Your task to perform on an android device: change the clock display to show seconds Image 0: 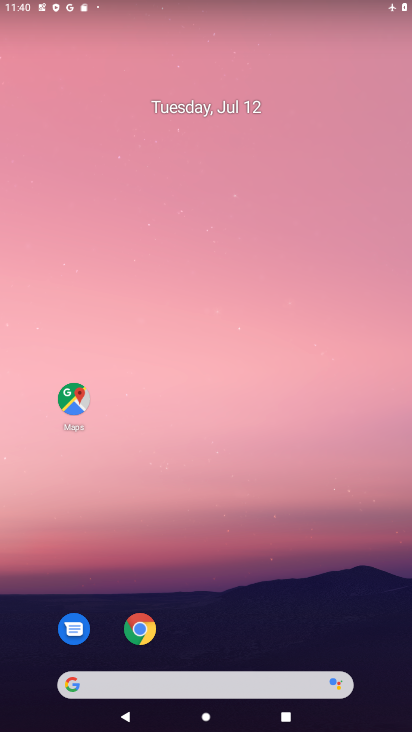
Step 0: drag from (203, 619) to (204, 212)
Your task to perform on an android device: change the clock display to show seconds Image 1: 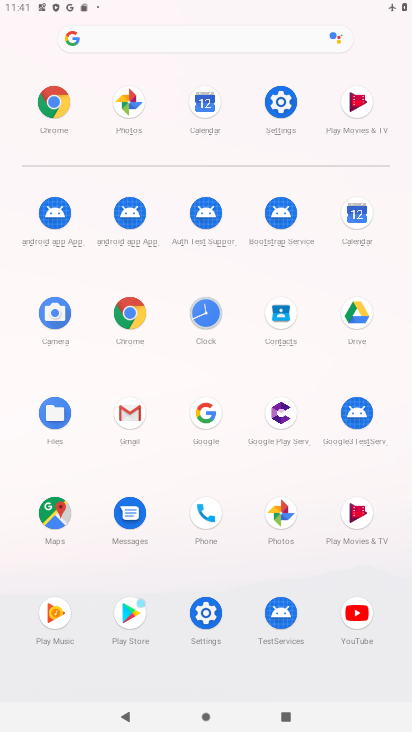
Step 1: click (194, 310)
Your task to perform on an android device: change the clock display to show seconds Image 2: 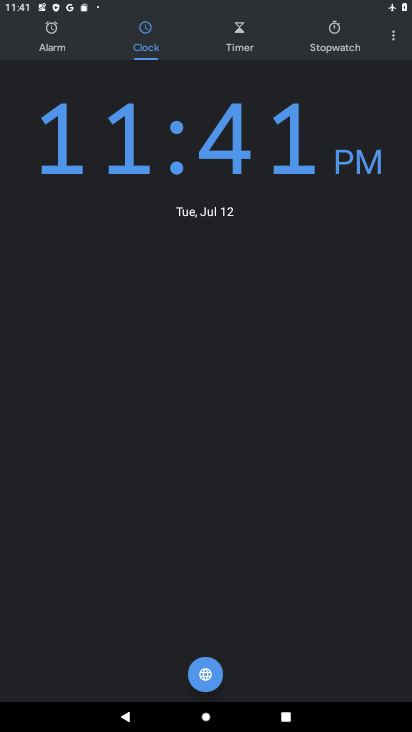
Step 2: click (393, 30)
Your task to perform on an android device: change the clock display to show seconds Image 3: 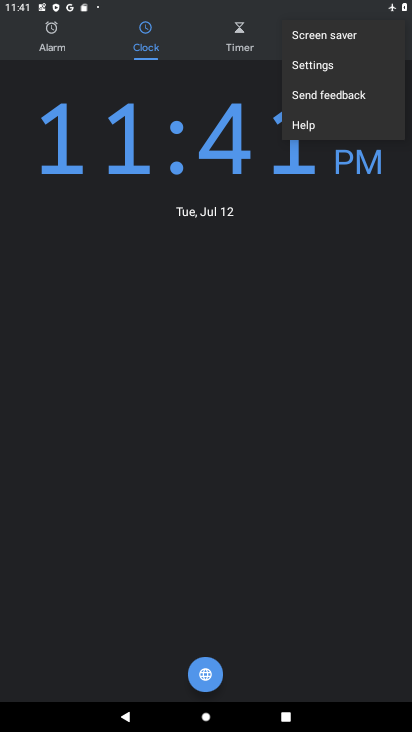
Step 3: click (347, 68)
Your task to perform on an android device: change the clock display to show seconds Image 4: 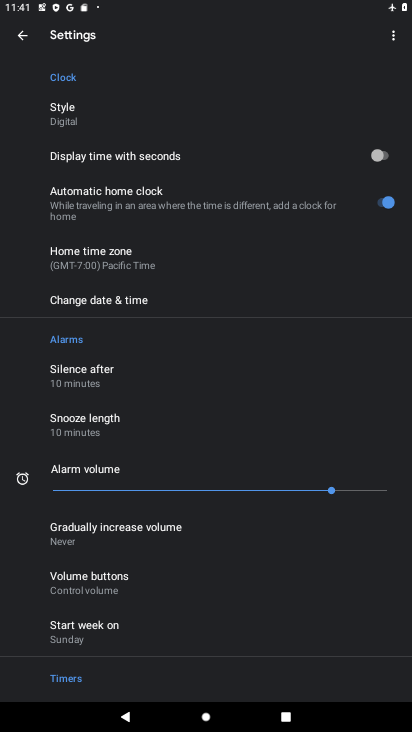
Step 4: drag from (218, 125) to (227, 437)
Your task to perform on an android device: change the clock display to show seconds Image 5: 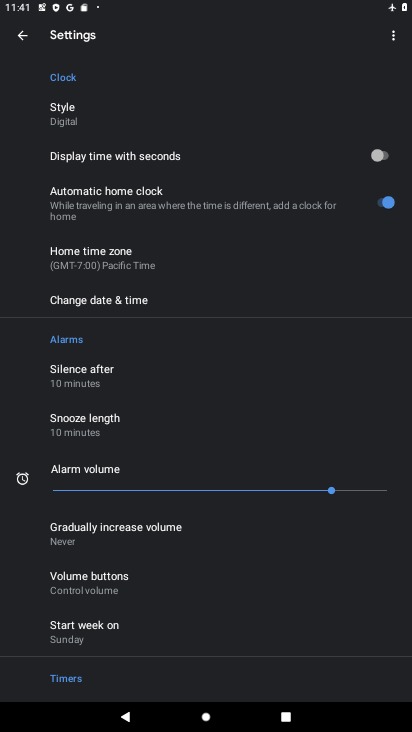
Step 5: click (368, 154)
Your task to perform on an android device: change the clock display to show seconds Image 6: 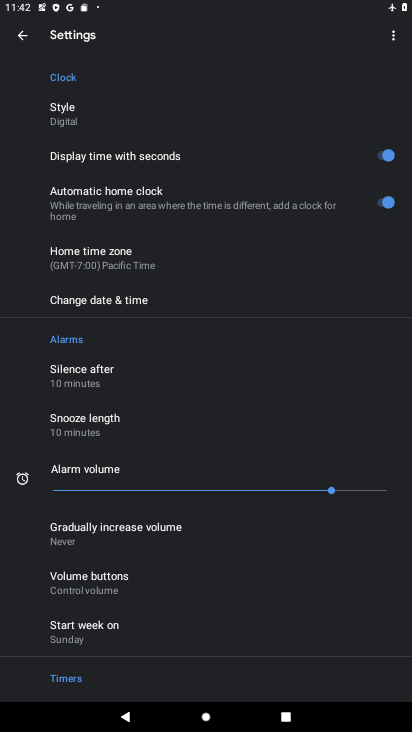
Step 6: task complete